Your task to perform on an android device: change the clock display to show seconds Image 0: 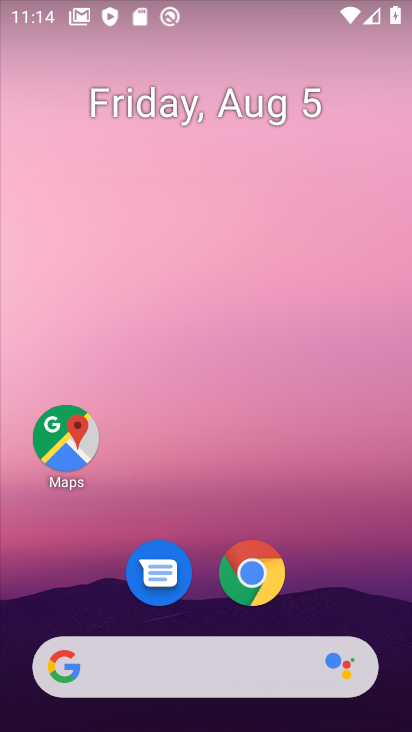
Step 0: drag from (206, 489) to (315, 54)
Your task to perform on an android device: change the clock display to show seconds Image 1: 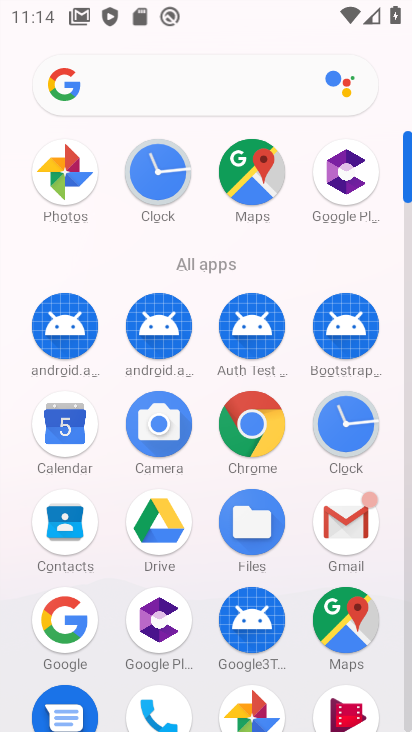
Step 1: click (164, 173)
Your task to perform on an android device: change the clock display to show seconds Image 2: 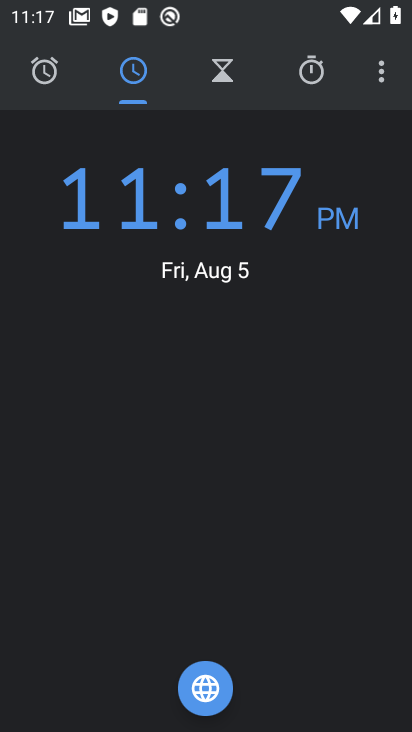
Step 2: click (380, 78)
Your task to perform on an android device: change the clock display to show seconds Image 3: 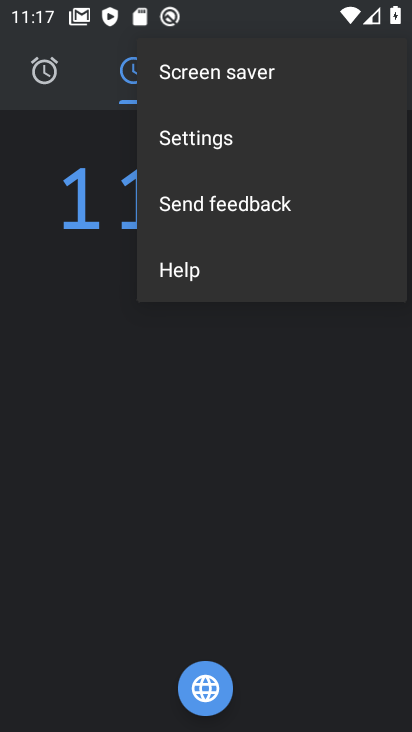
Step 3: click (240, 142)
Your task to perform on an android device: change the clock display to show seconds Image 4: 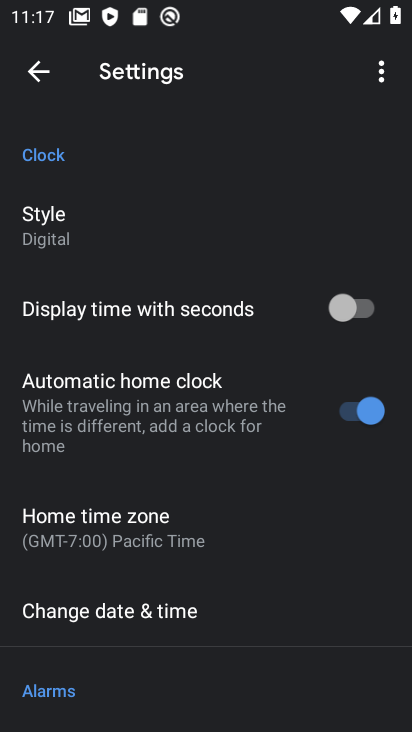
Step 4: task complete